Your task to perform on an android device: What is the news today? Image 0: 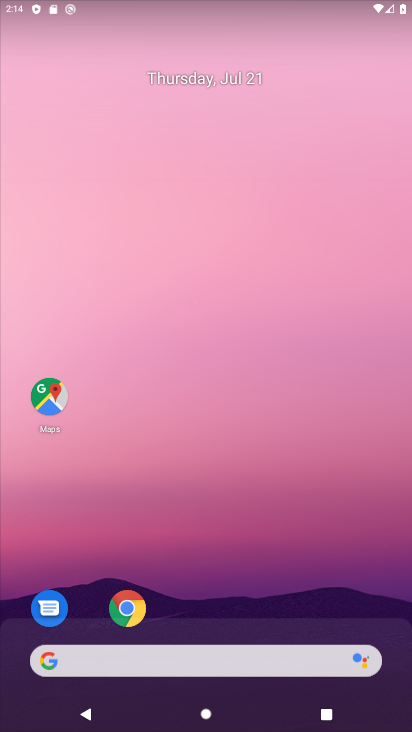
Step 0: click (202, 679)
Your task to perform on an android device: What is the news today? Image 1: 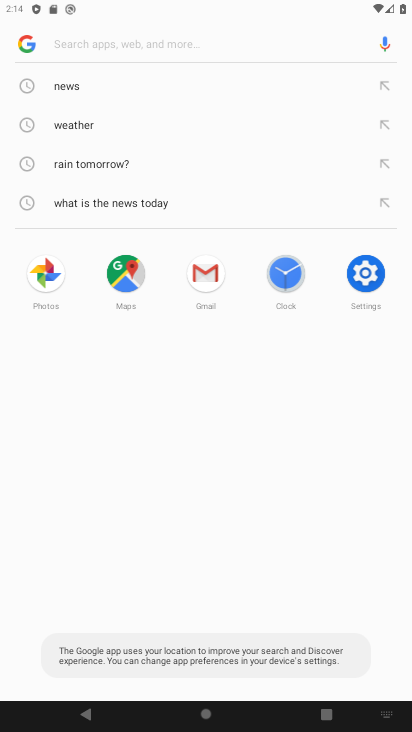
Step 1: click (52, 89)
Your task to perform on an android device: What is the news today? Image 2: 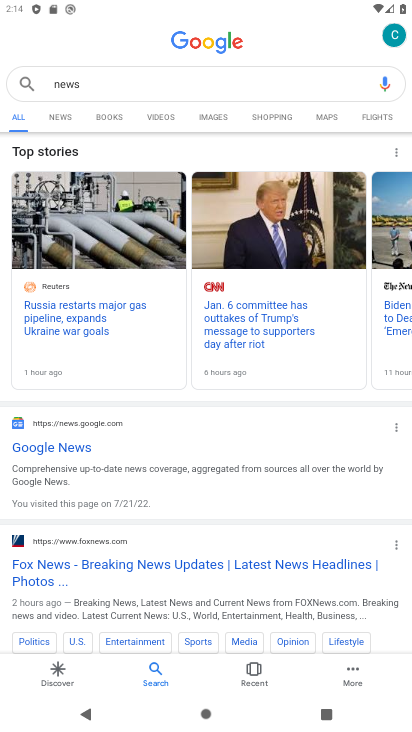
Step 2: click (54, 124)
Your task to perform on an android device: What is the news today? Image 3: 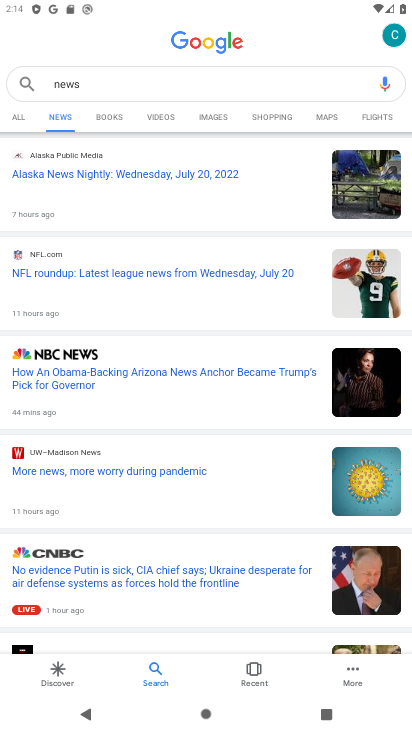
Step 3: task complete